Your task to perform on an android device: Open Google Maps Image 0: 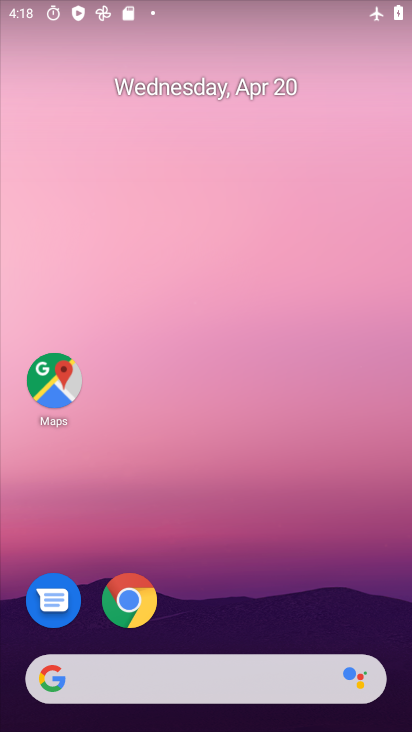
Step 0: drag from (270, 580) to (222, 120)
Your task to perform on an android device: Open Google Maps Image 1: 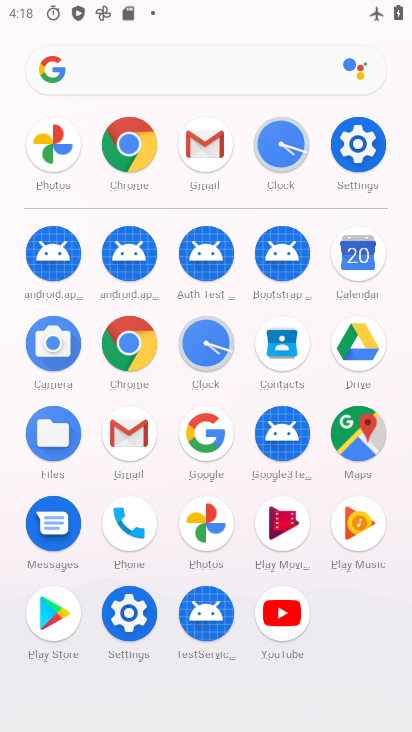
Step 1: click (354, 430)
Your task to perform on an android device: Open Google Maps Image 2: 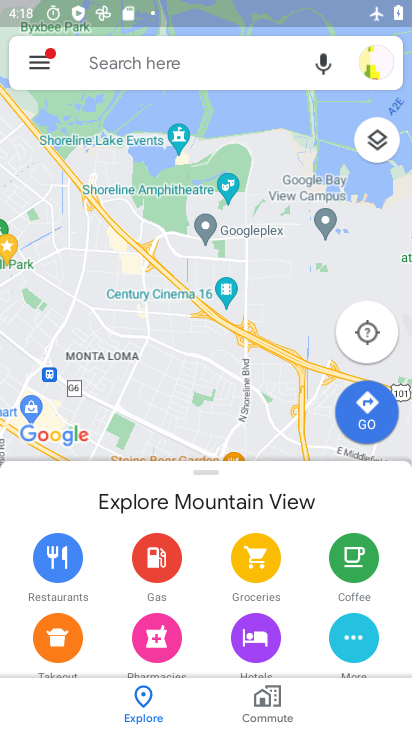
Step 2: task complete